Your task to perform on an android device: What's the weather today? Image 0: 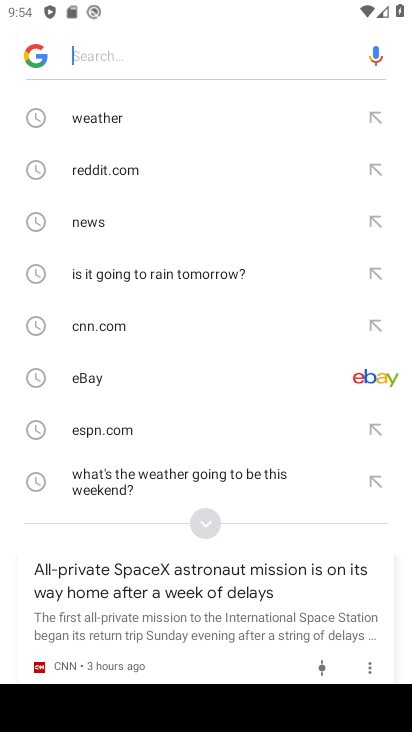
Step 0: click (92, 117)
Your task to perform on an android device: What's the weather today? Image 1: 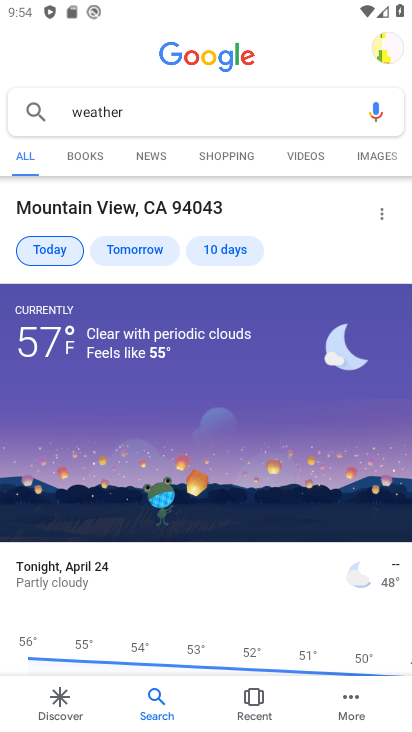
Step 1: task complete